Your task to perform on an android device: Go to battery settings Image 0: 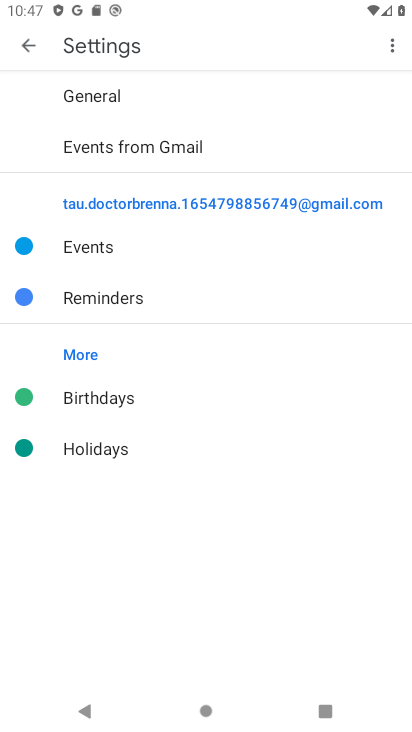
Step 0: press home button
Your task to perform on an android device: Go to battery settings Image 1: 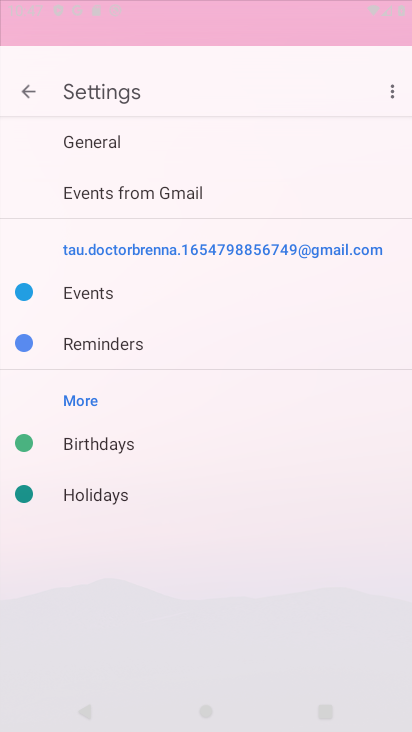
Step 1: drag from (288, 573) to (239, 194)
Your task to perform on an android device: Go to battery settings Image 2: 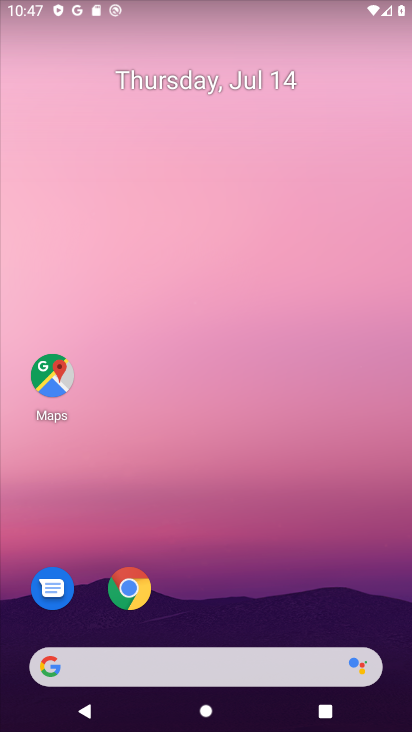
Step 2: drag from (285, 498) to (205, 193)
Your task to perform on an android device: Go to battery settings Image 3: 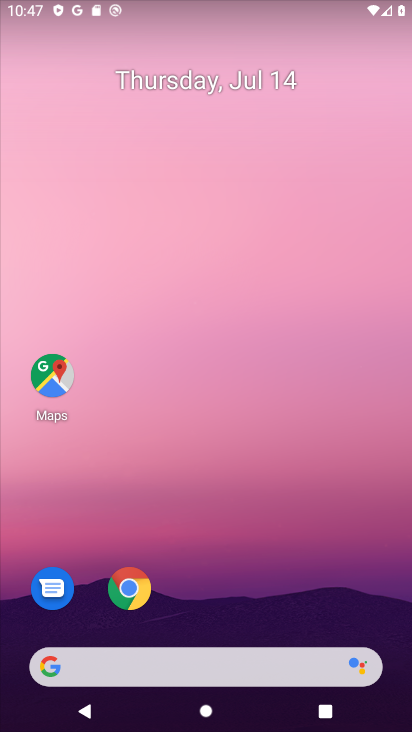
Step 3: drag from (317, 603) to (229, 184)
Your task to perform on an android device: Go to battery settings Image 4: 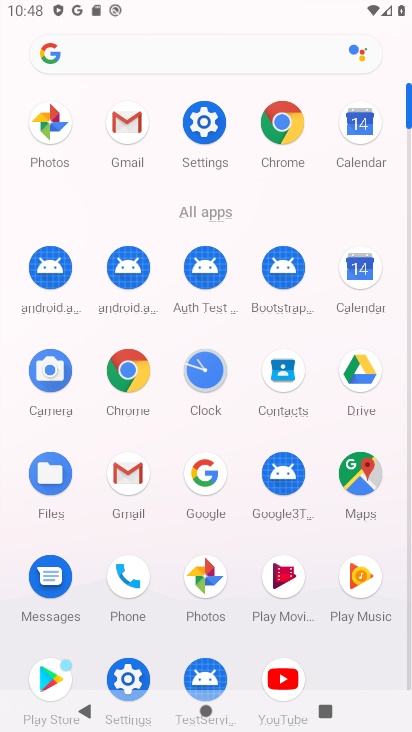
Step 4: click (126, 677)
Your task to perform on an android device: Go to battery settings Image 5: 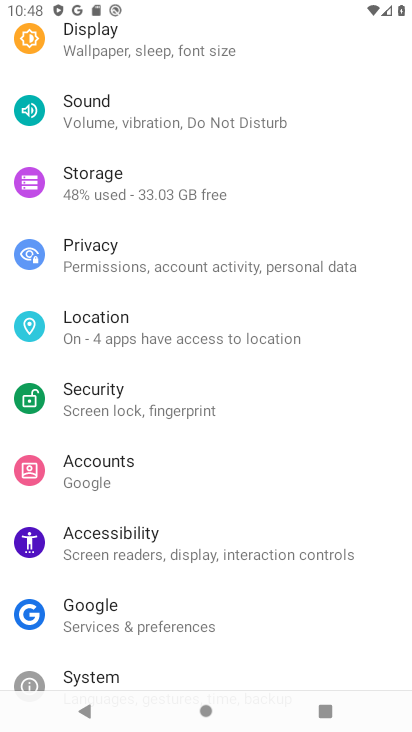
Step 5: drag from (211, 189) to (211, 601)
Your task to perform on an android device: Go to battery settings Image 6: 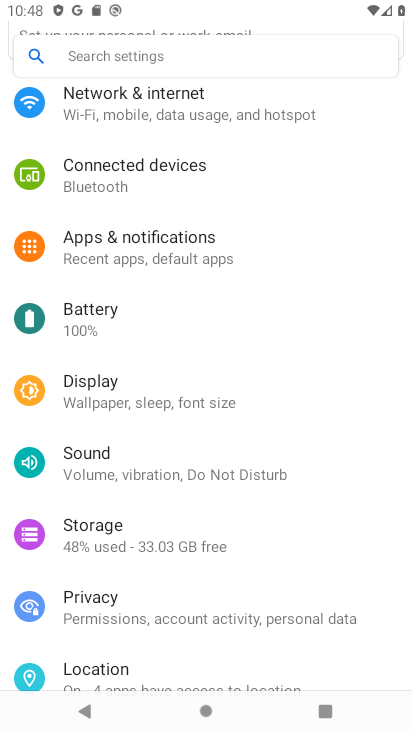
Step 6: drag from (134, 215) to (136, 538)
Your task to perform on an android device: Go to battery settings Image 7: 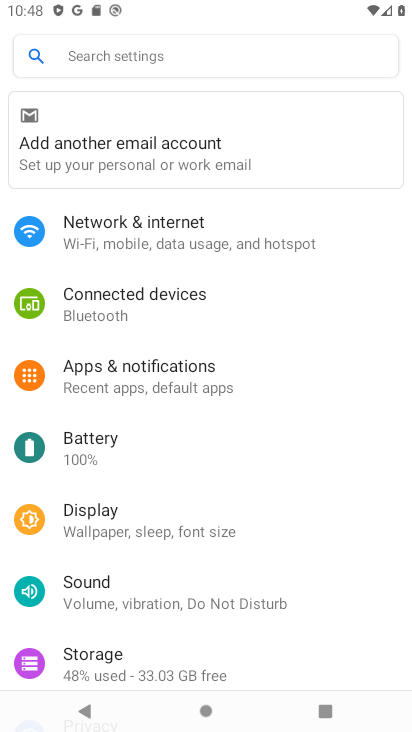
Step 7: click (111, 443)
Your task to perform on an android device: Go to battery settings Image 8: 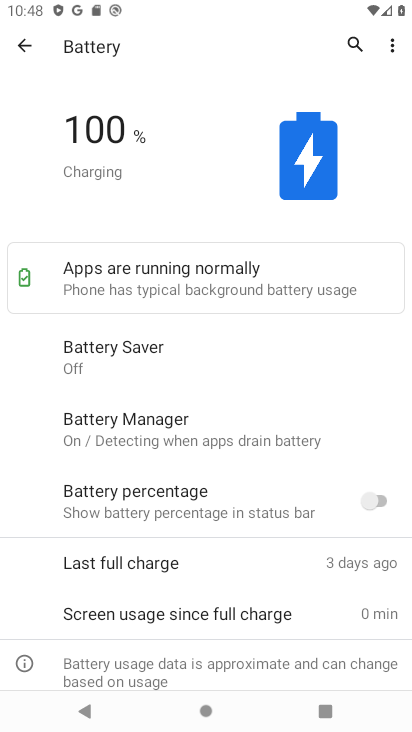
Step 8: task complete